Your task to perform on an android device: change alarm snooze length Image 0: 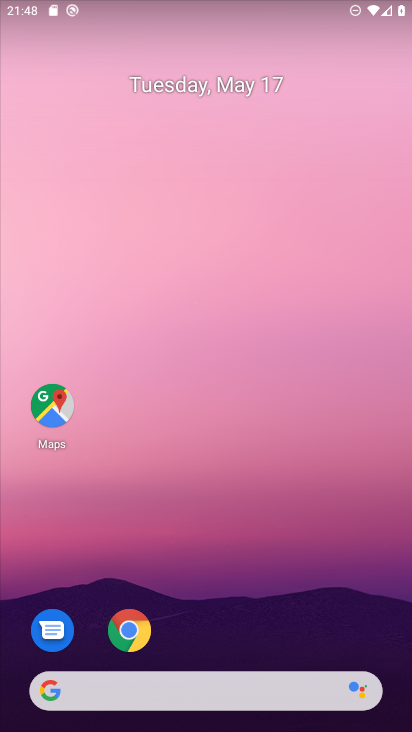
Step 0: drag from (378, 595) to (367, 156)
Your task to perform on an android device: change alarm snooze length Image 1: 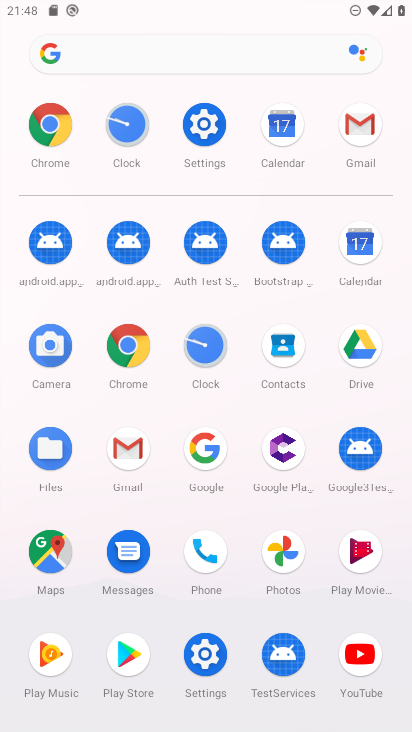
Step 1: click (203, 349)
Your task to perform on an android device: change alarm snooze length Image 2: 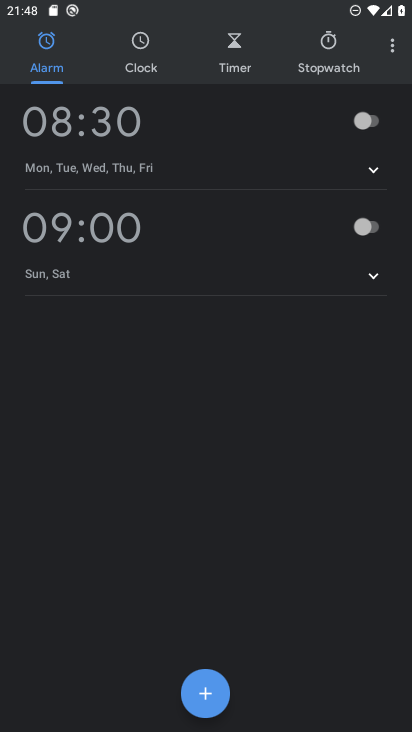
Step 2: click (389, 52)
Your task to perform on an android device: change alarm snooze length Image 3: 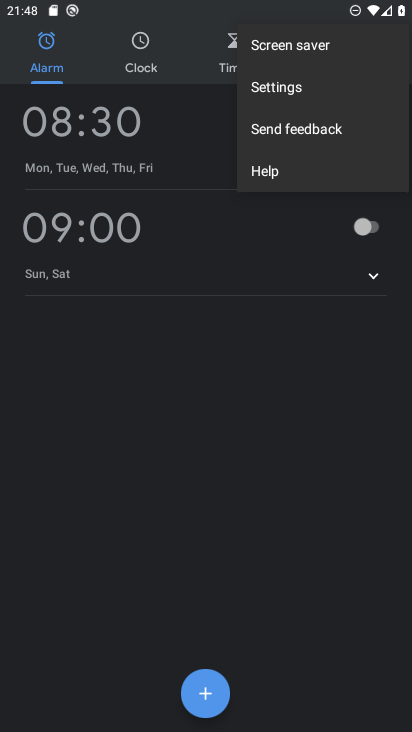
Step 3: click (302, 94)
Your task to perform on an android device: change alarm snooze length Image 4: 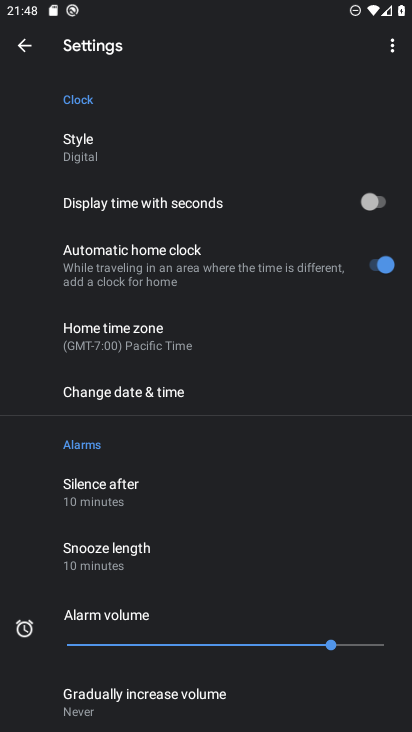
Step 4: click (133, 557)
Your task to perform on an android device: change alarm snooze length Image 5: 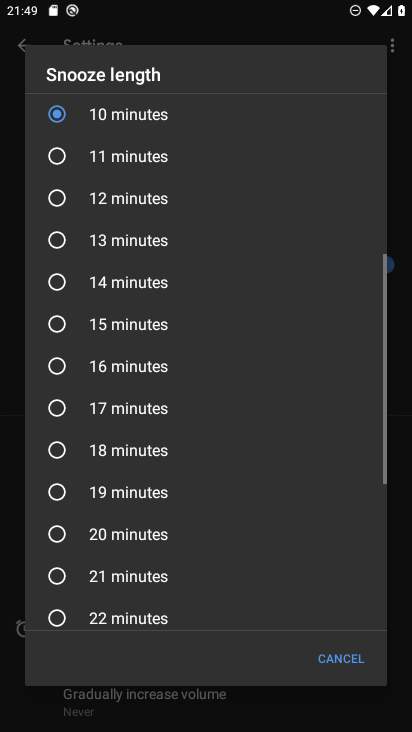
Step 5: click (130, 411)
Your task to perform on an android device: change alarm snooze length Image 6: 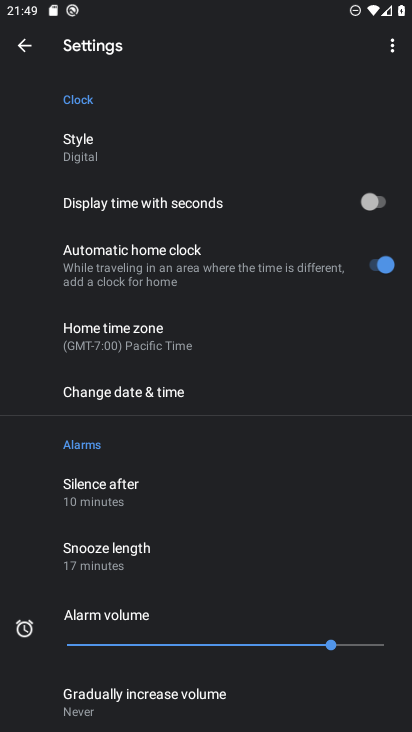
Step 6: task complete